Your task to perform on an android device: see creations saved in the google photos Image 0: 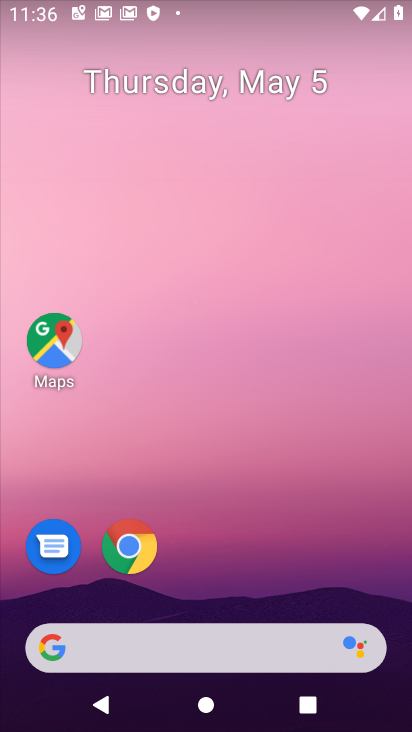
Step 0: drag from (228, 583) to (216, 76)
Your task to perform on an android device: see creations saved in the google photos Image 1: 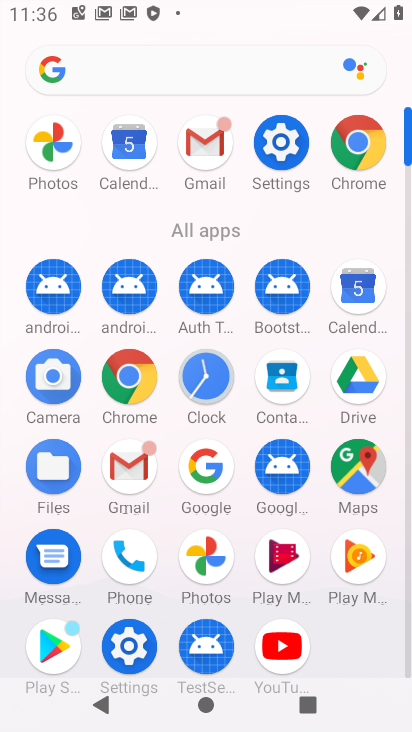
Step 1: click (204, 561)
Your task to perform on an android device: see creations saved in the google photos Image 2: 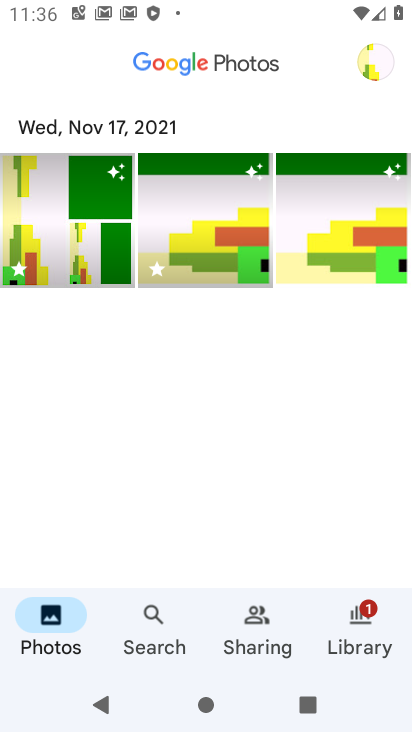
Step 2: click (155, 608)
Your task to perform on an android device: see creations saved in the google photos Image 3: 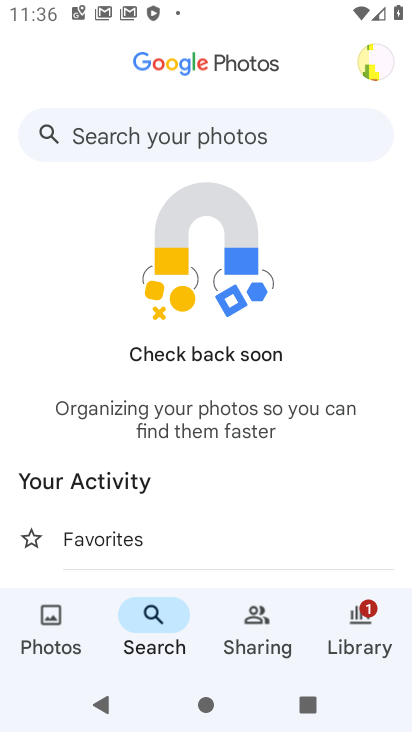
Step 3: drag from (173, 529) to (142, 225)
Your task to perform on an android device: see creations saved in the google photos Image 4: 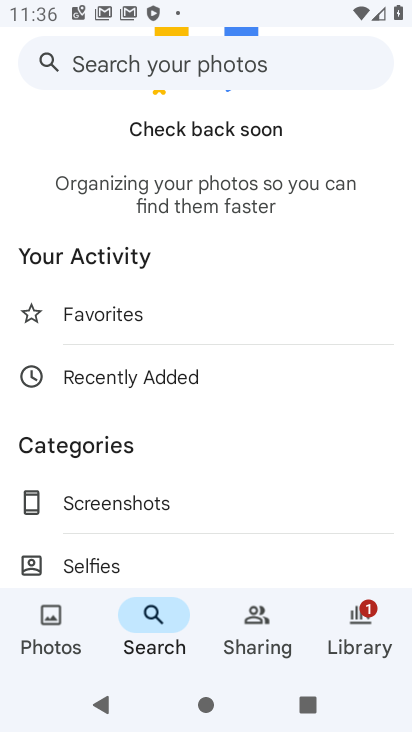
Step 4: drag from (191, 496) to (188, 273)
Your task to perform on an android device: see creations saved in the google photos Image 5: 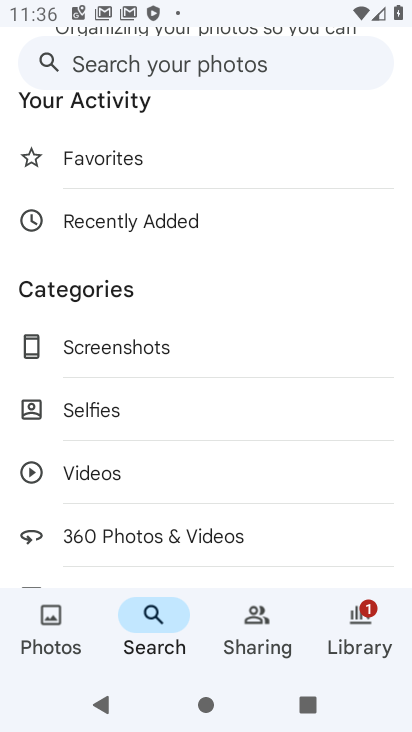
Step 5: drag from (203, 479) to (228, 244)
Your task to perform on an android device: see creations saved in the google photos Image 6: 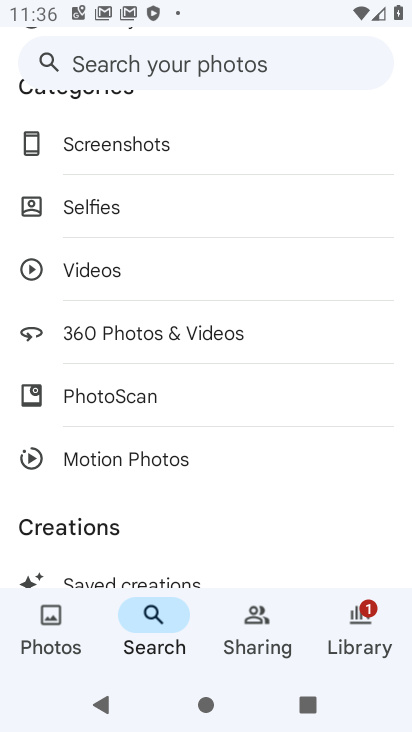
Step 6: drag from (239, 533) to (232, 260)
Your task to perform on an android device: see creations saved in the google photos Image 7: 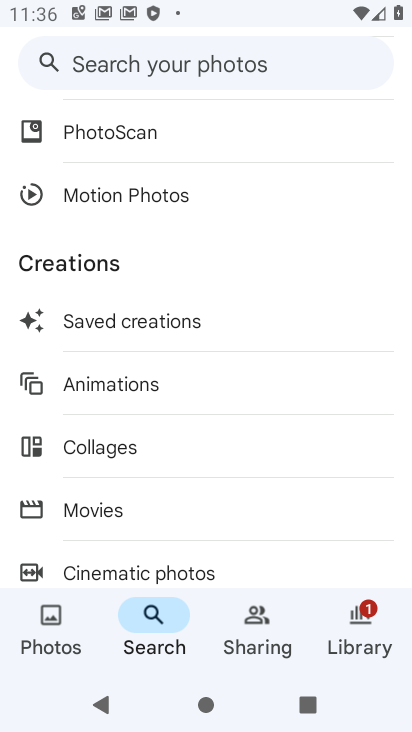
Step 7: click (178, 323)
Your task to perform on an android device: see creations saved in the google photos Image 8: 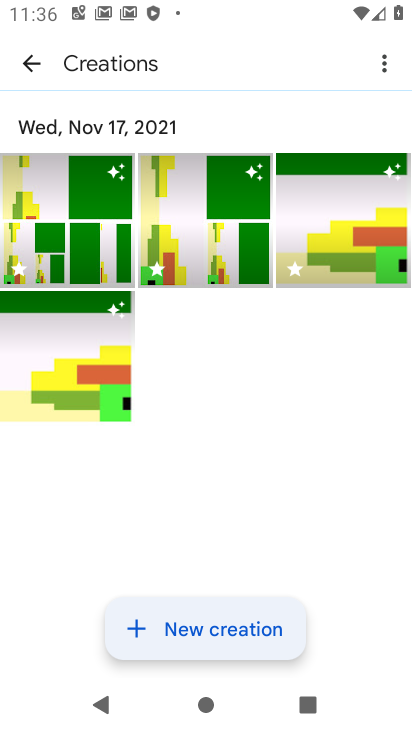
Step 8: task complete